Your task to perform on an android device: create a new album in the google photos Image 0: 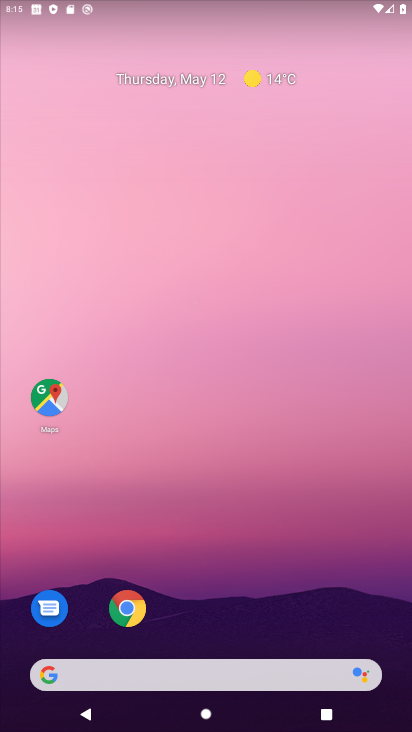
Step 0: drag from (177, 562) to (173, 335)
Your task to perform on an android device: create a new album in the google photos Image 1: 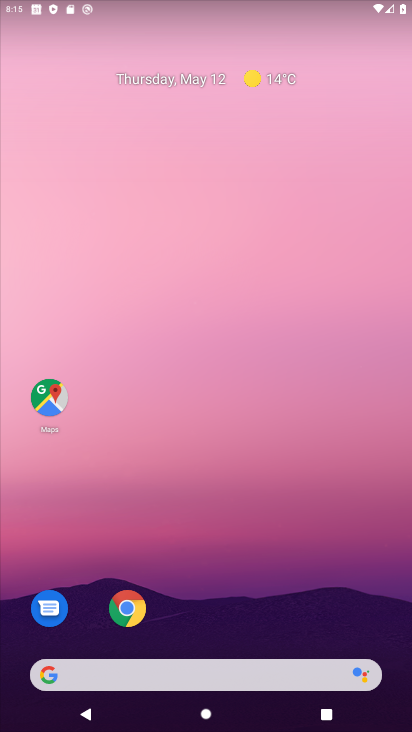
Step 1: drag from (217, 652) to (210, 246)
Your task to perform on an android device: create a new album in the google photos Image 2: 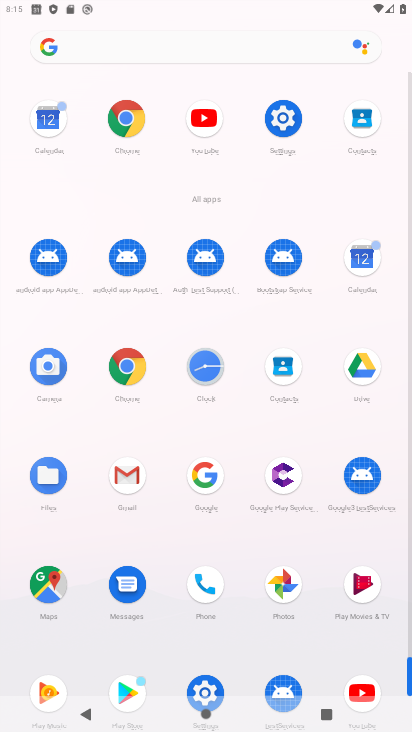
Step 2: click (288, 585)
Your task to perform on an android device: create a new album in the google photos Image 3: 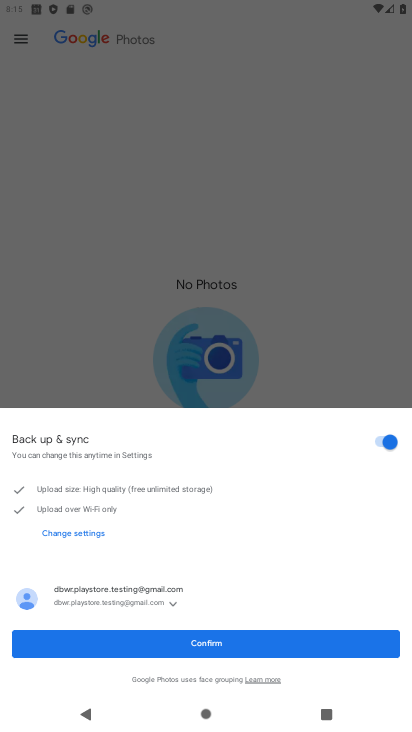
Step 3: click (165, 649)
Your task to perform on an android device: create a new album in the google photos Image 4: 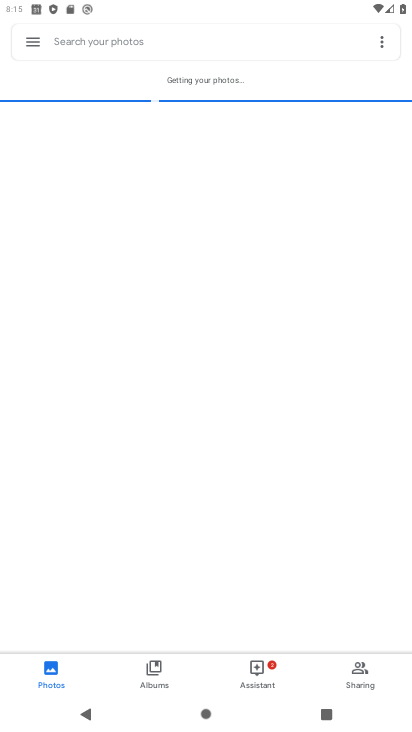
Step 4: click (156, 659)
Your task to perform on an android device: create a new album in the google photos Image 5: 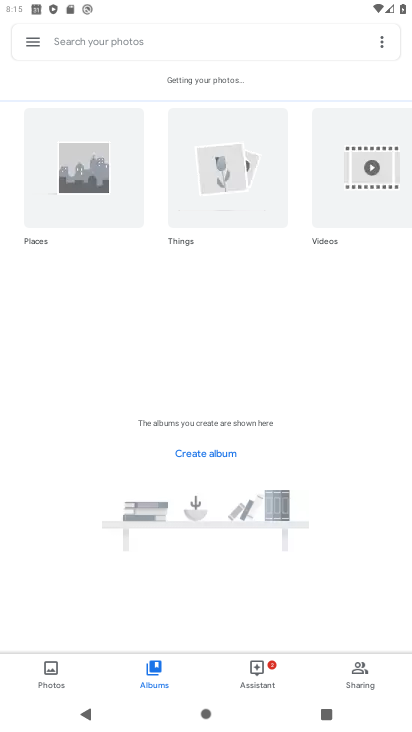
Step 5: click (210, 455)
Your task to perform on an android device: create a new album in the google photos Image 6: 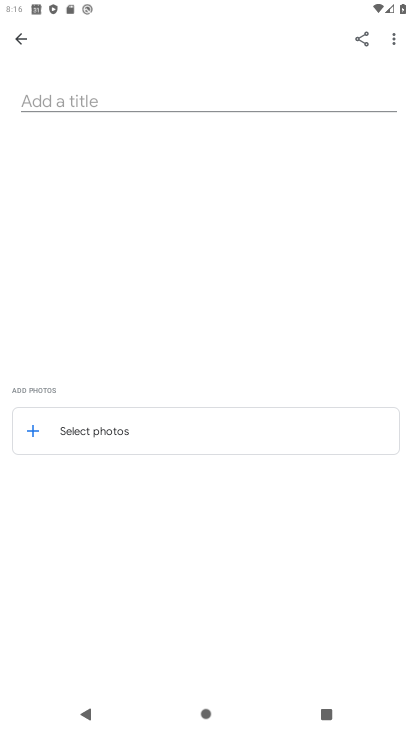
Step 6: click (97, 101)
Your task to perform on an android device: create a new album in the google photos Image 7: 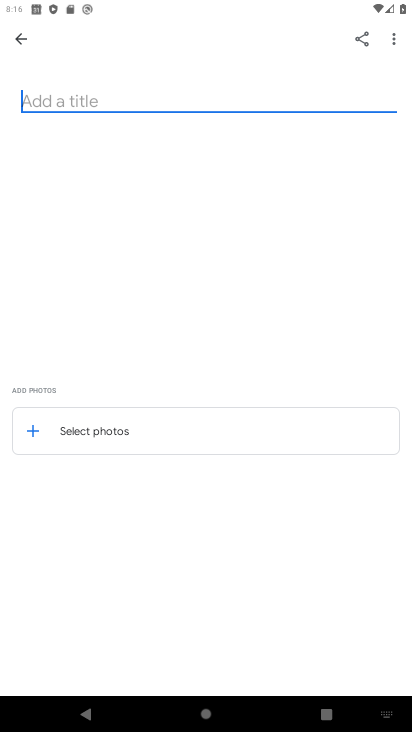
Step 7: type "mukti"
Your task to perform on an android device: create a new album in the google photos Image 8: 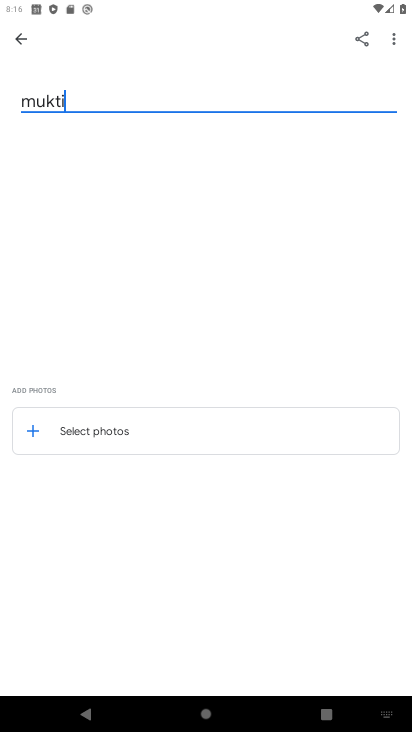
Step 8: click (85, 429)
Your task to perform on an android device: create a new album in the google photos Image 9: 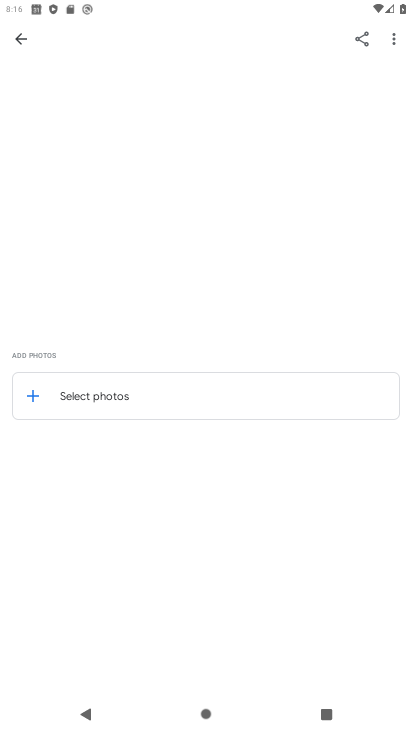
Step 9: click (32, 393)
Your task to perform on an android device: create a new album in the google photos Image 10: 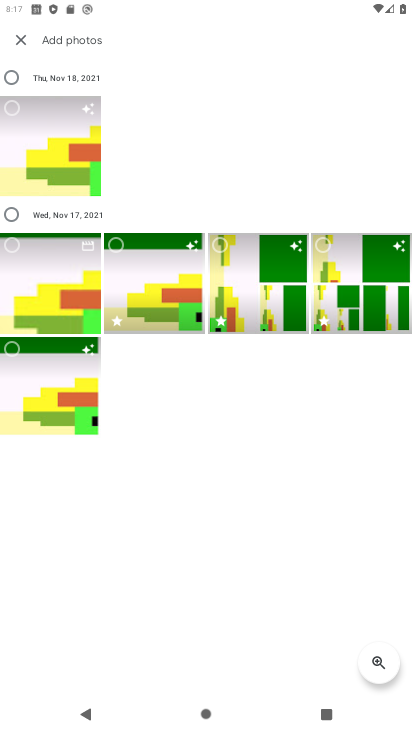
Step 10: click (46, 183)
Your task to perform on an android device: create a new album in the google photos Image 11: 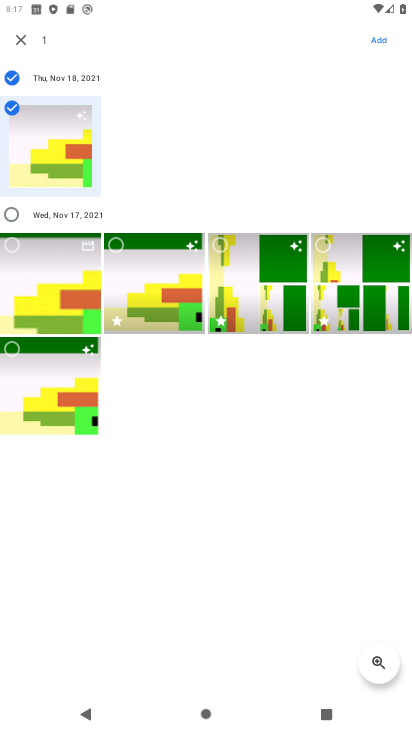
Step 11: click (15, 248)
Your task to perform on an android device: create a new album in the google photos Image 12: 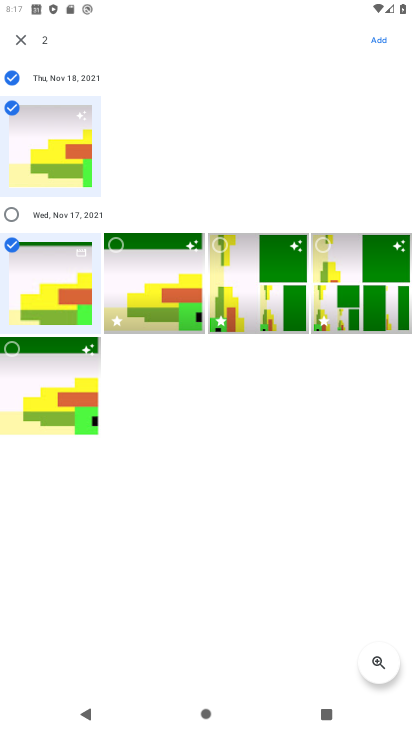
Step 12: click (105, 243)
Your task to perform on an android device: create a new album in the google photos Image 13: 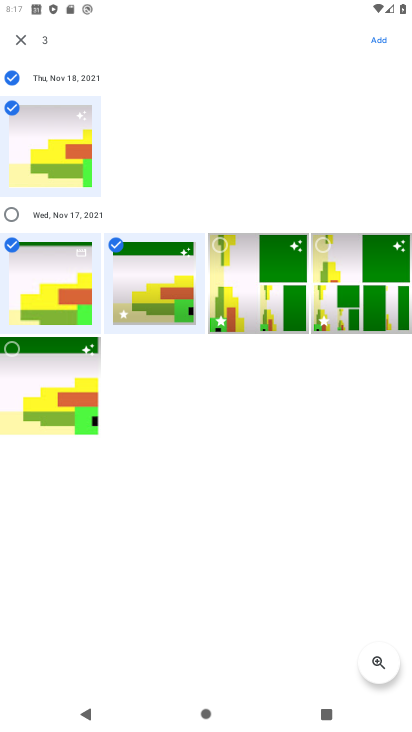
Step 13: click (370, 34)
Your task to perform on an android device: create a new album in the google photos Image 14: 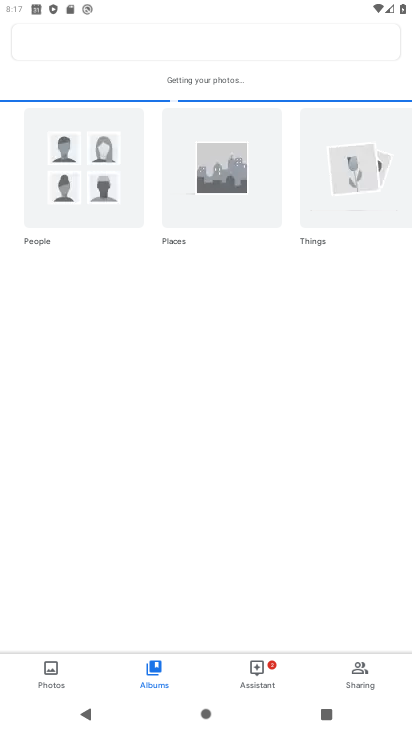
Step 14: task complete